Your task to perform on an android device: change notification settings in the gmail app Image 0: 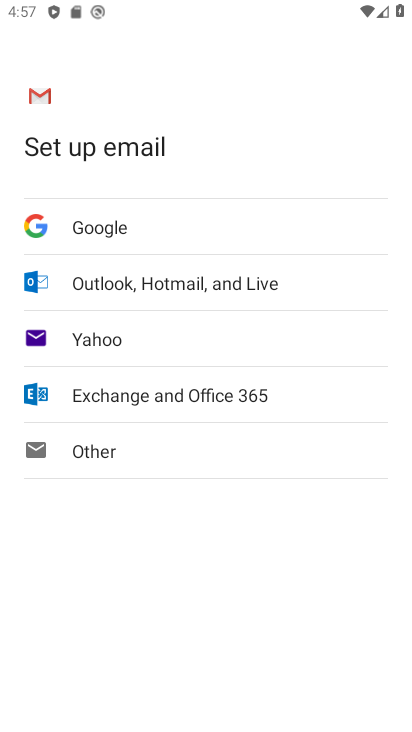
Step 0: press home button
Your task to perform on an android device: change notification settings in the gmail app Image 1: 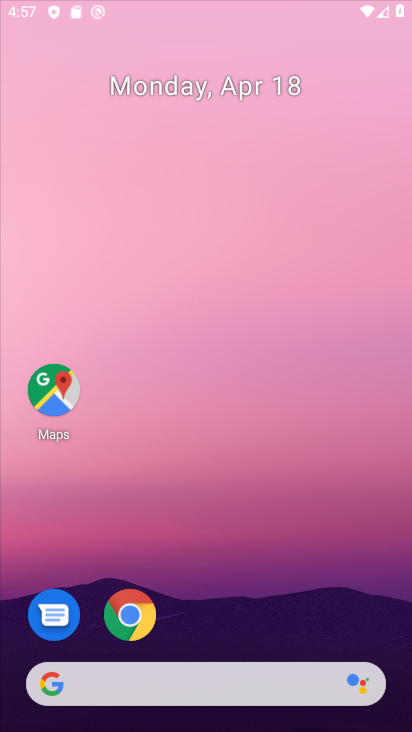
Step 1: press home button
Your task to perform on an android device: change notification settings in the gmail app Image 2: 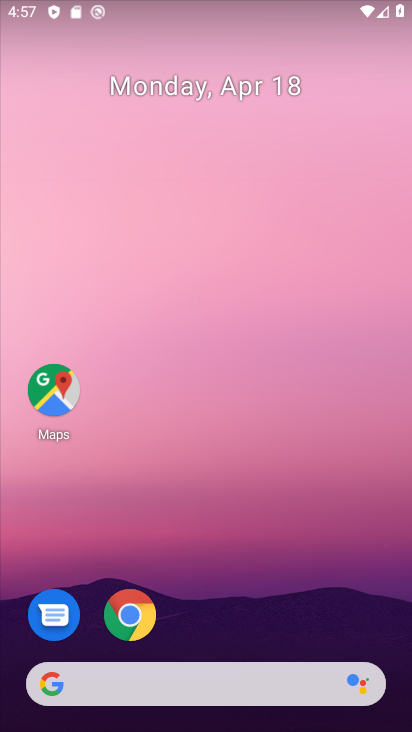
Step 2: drag from (330, 626) to (333, 28)
Your task to perform on an android device: change notification settings in the gmail app Image 3: 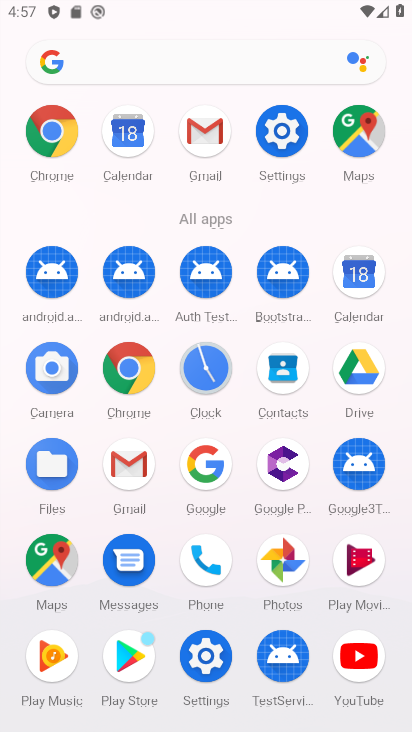
Step 3: click (202, 136)
Your task to perform on an android device: change notification settings in the gmail app Image 4: 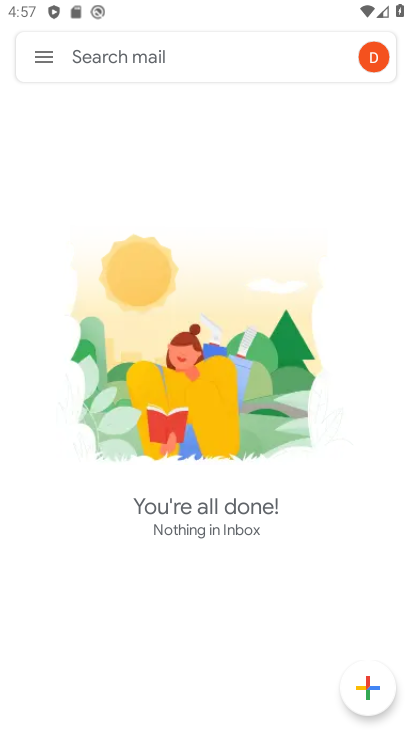
Step 4: press home button
Your task to perform on an android device: change notification settings in the gmail app Image 5: 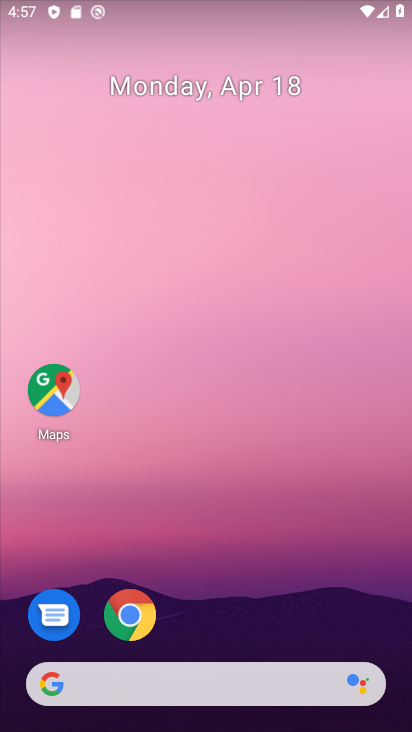
Step 5: drag from (329, 576) to (317, 3)
Your task to perform on an android device: change notification settings in the gmail app Image 6: 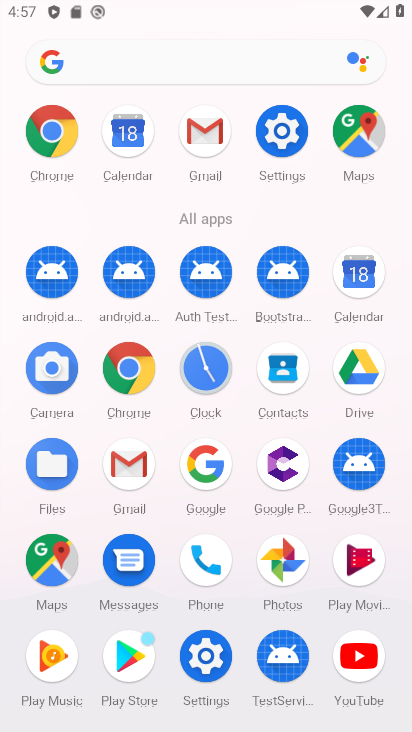
Step 6: click (211, 204)
Your task to perform on an android device: change notification settings in the gmail app Image 7: 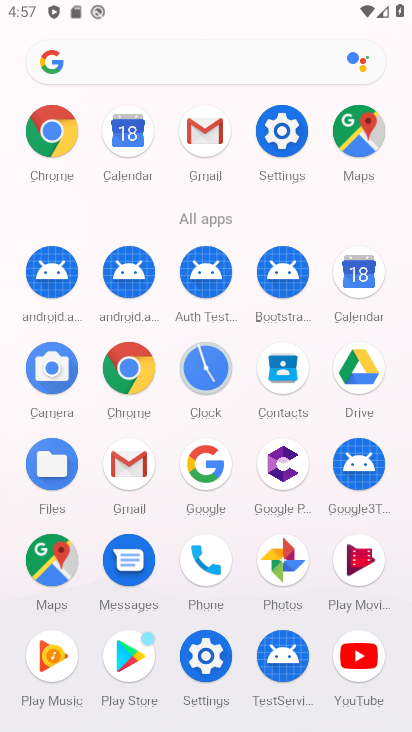
Step 7: click (212, 131)
Your task to perform on an android device: change notification settings in the gmail app Image 8: 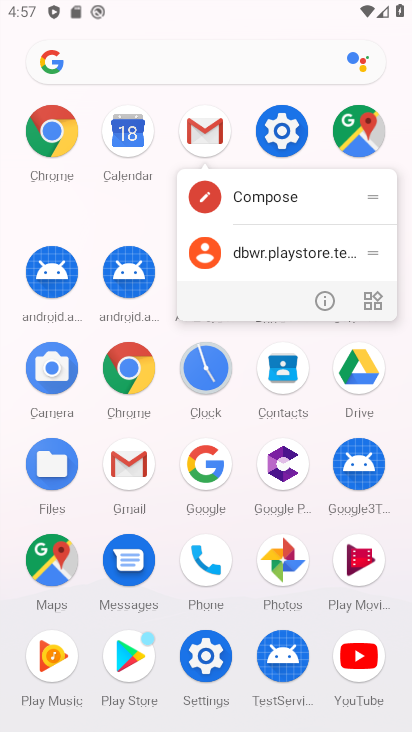
Step 8: click (323, 293)
Your task to perform on an android device: change notification settings in the gmail app Image 9: 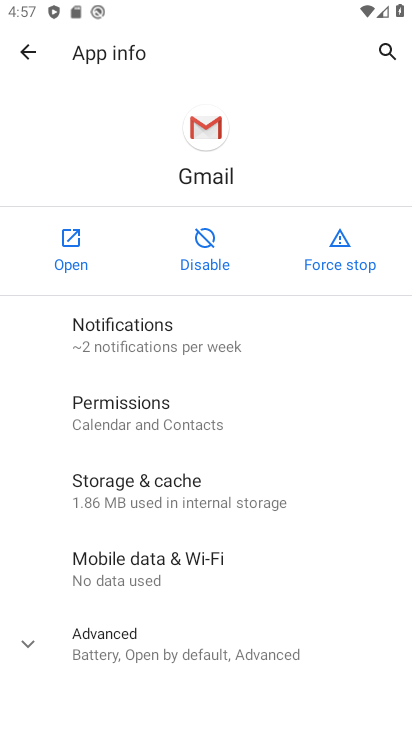
Step 9: click (230, 333)
Your task to perform on an android device: change notification settings in the gmail app Image 10: 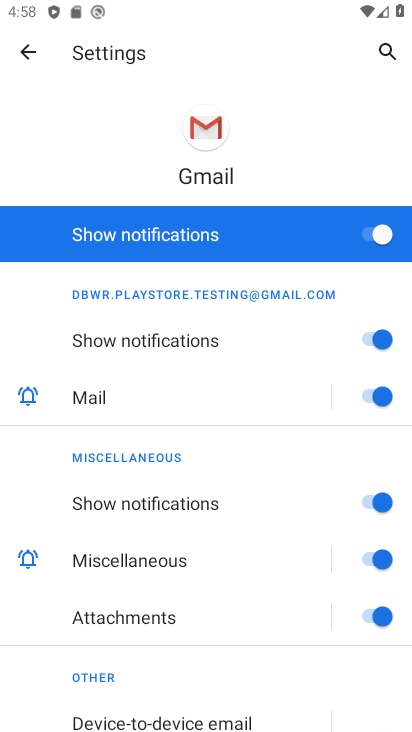
Step 10: click (385, 231)
Your task to perform on an android device: change notification settings in the gmail app Image 11: 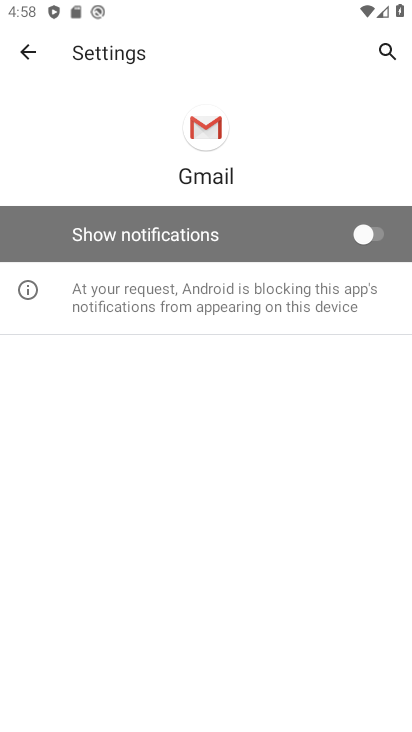
Step 11: task complete